Your task to perform on an android device: turn off location Image 0: 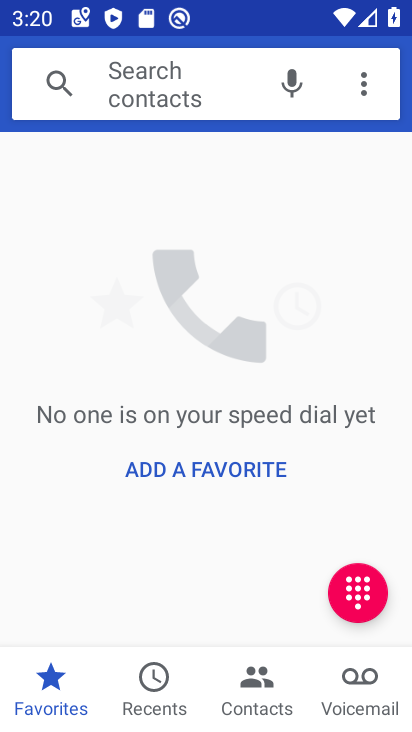
Step 0: press back button
Your task to perform on an android device: turn off location Image 1: 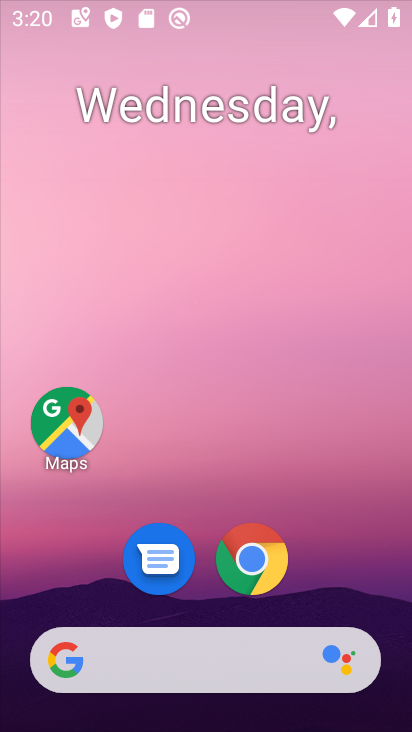
Step 1: drag from (157, 632) to (240, 139)
Your task to perform on an android device: turn off location Image 2: 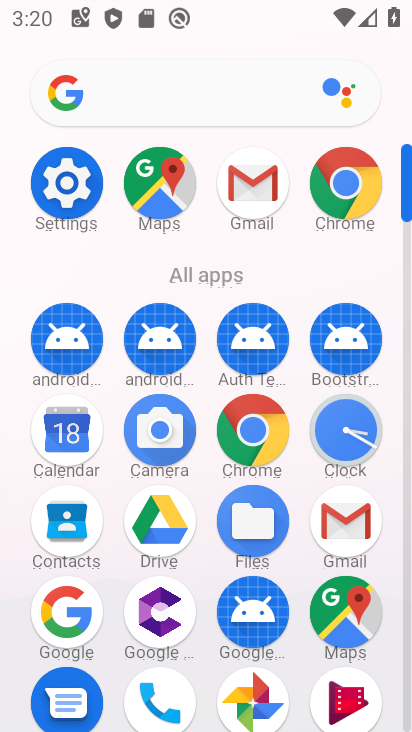
Step 2: drag from (190, 616) to (275, 407)
Your task to perform on an android device: turn off location Image 3: 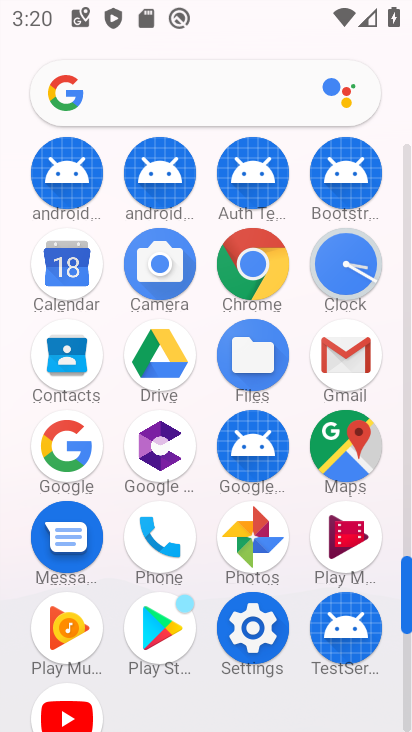
Step 3: click (261, 638)
Your task to perform on an android device: turn off location Image 4: 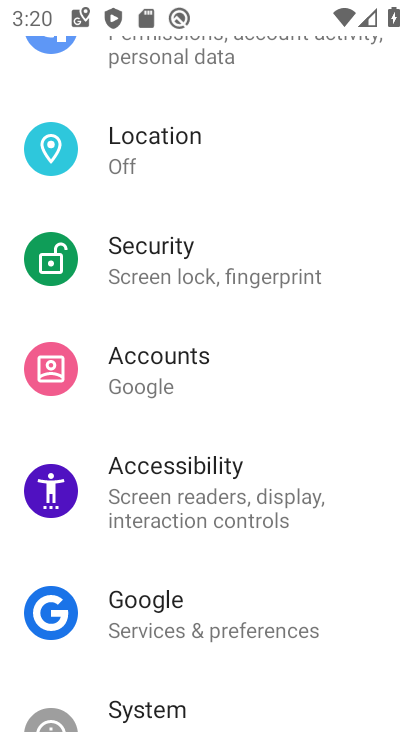
Step 4: drag from (265, 236) to (236, 445)
Your task to perform on an android device: turn off location Image 5: 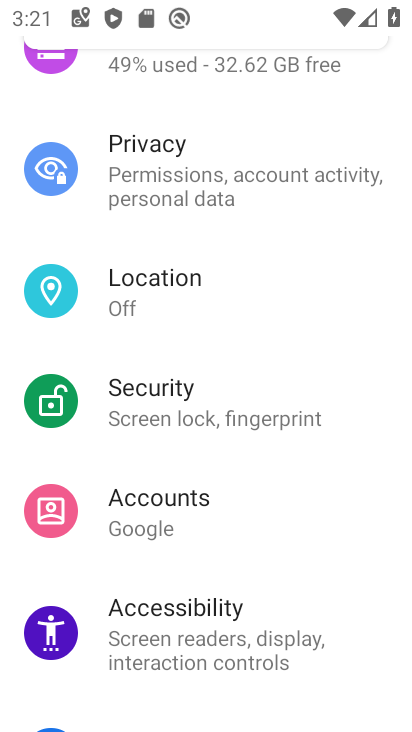
Step 5: click (233, 285)
Your task to perform on an android device: turn off location Image 6: 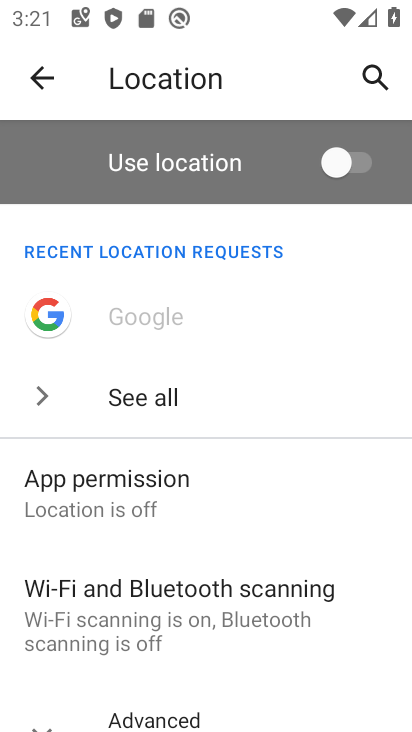
Step 6: task complete